Your task to perform on an android device: search for starred emails in the gmail app Image 0: 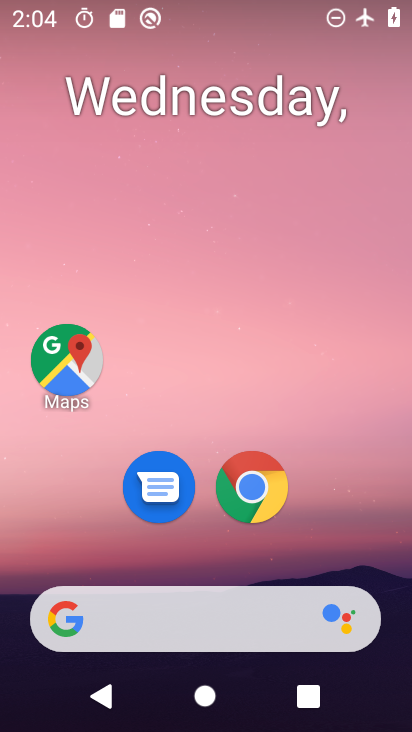
Step 0: drag from (118, 495) to (182, 58)
Your task to perform on an android device: search for starred emails in the gmail app Image 1: 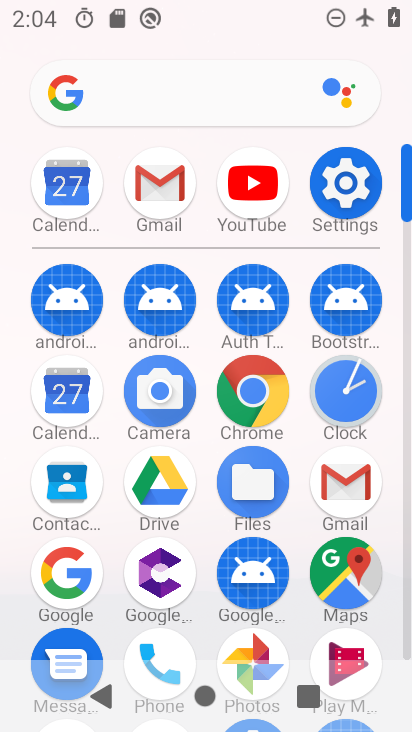
Step 1: click (169, 193)
Your task to perform on an android device: search for starred emails in the gmail app Image 2: 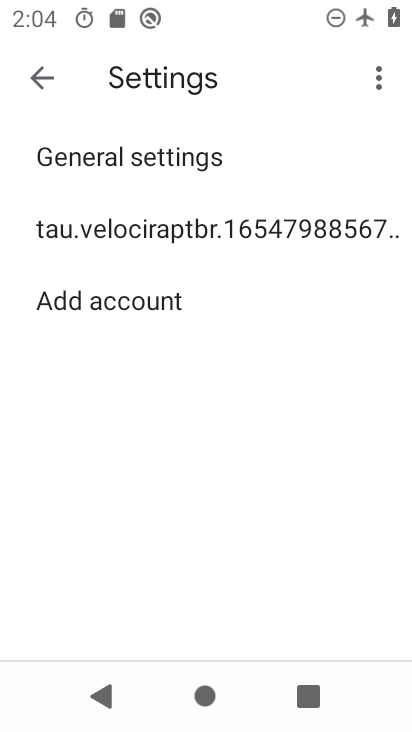
Step 2: click (34, 69)
Your task to perform on an android device: search for starred emails in the gmail app Image 3: 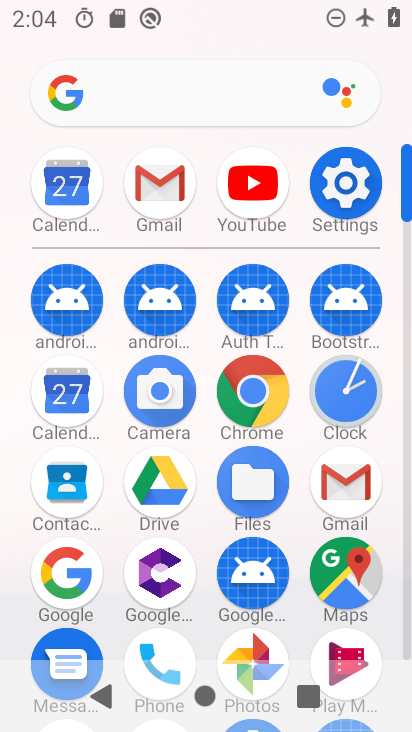
Step 3: click (156, 186)
Your task to perform on an android device: search for starred emails in the gmail app Image 4: 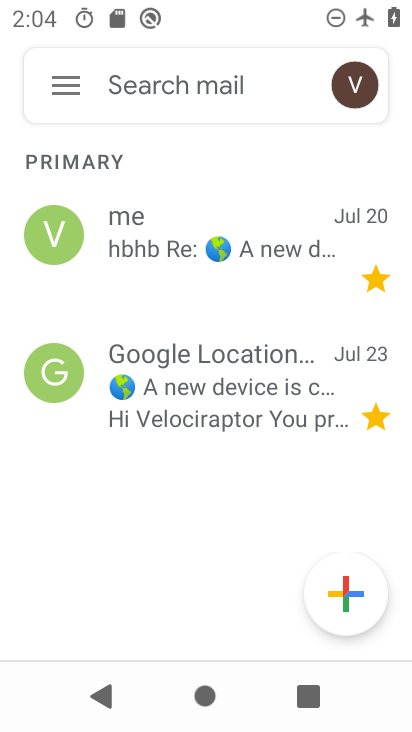
Step 4: click (61, 71)
Your task to perform on an android device: search for starred emails in the gmail app Image 5: 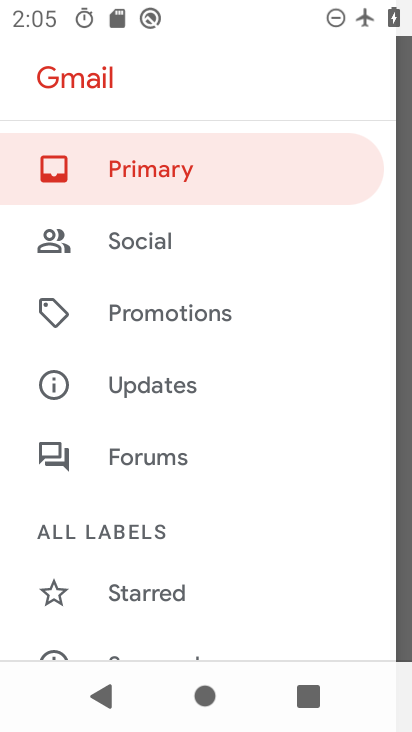
Step 5: click (165, 593)
Your task to perform on an android device: search for starred emails in the gmail app Image 6: 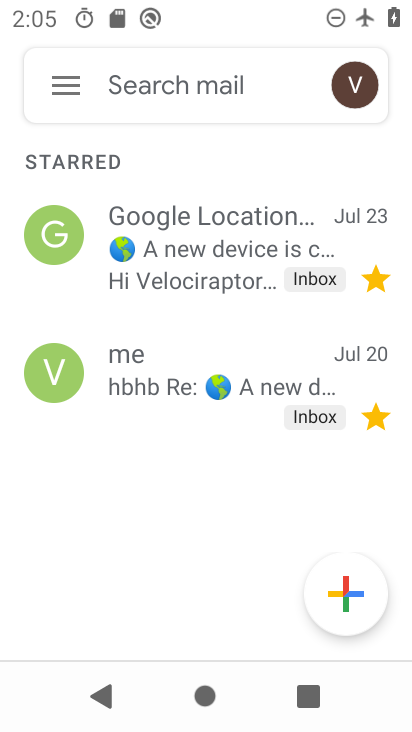
Step 6: task complete